Your task to perform on an android device: Go to CNN.com Image 0: 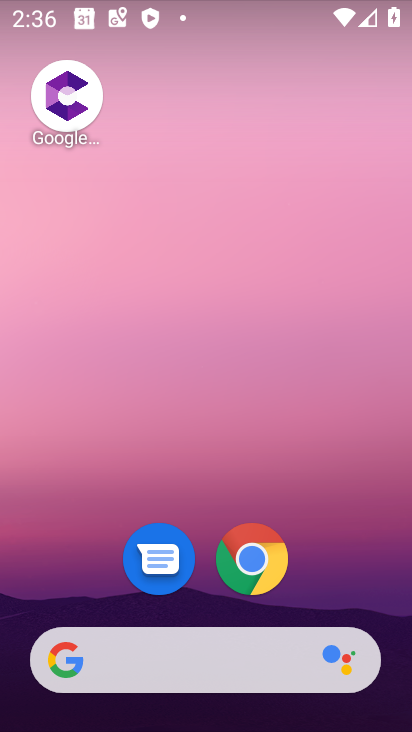
Step 0: click (261, 562)
Your task to perform on an android device: Go to CNN.com Image 1: 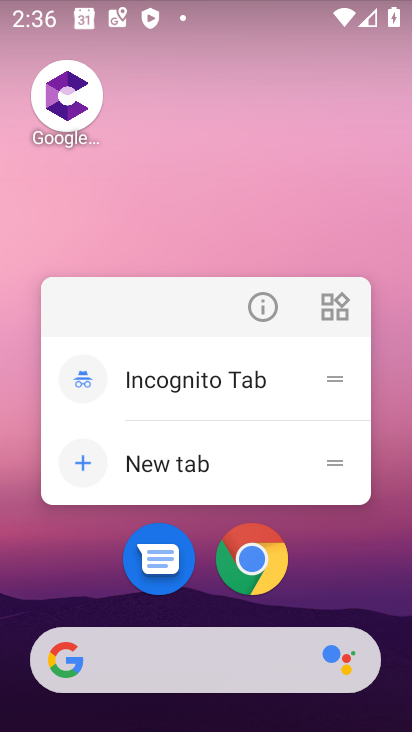
Step 1: click (261, 562)
Your task to perform on an android device: Go to CNN.com Image 2: 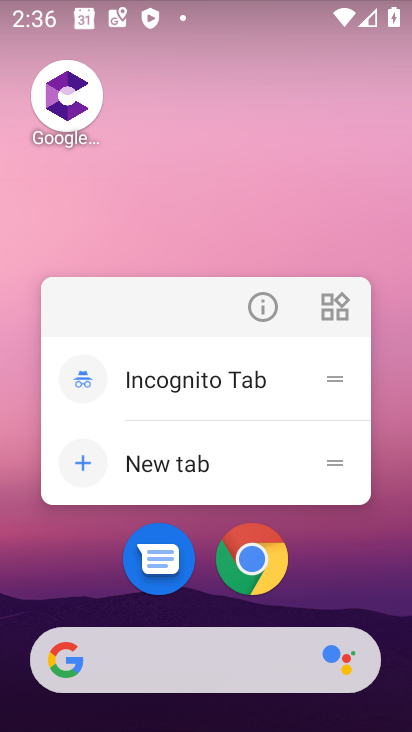
Step 2: click (261, 562)
Your task to perform on an android device: Go to CNN.com Image 3: 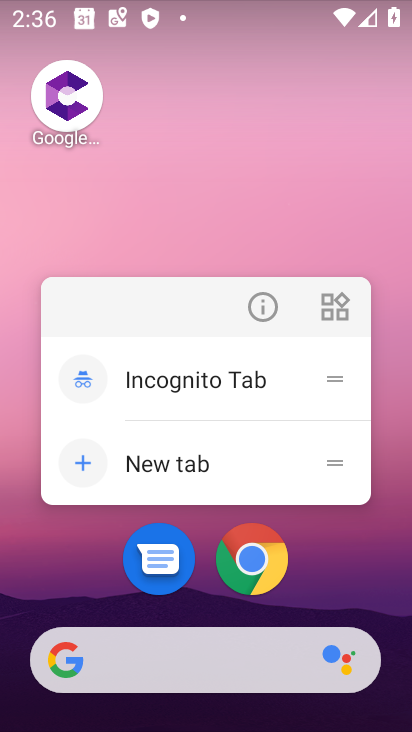
Step 3: click (261, 562)
Your task to perform on an android device: Go to CNN.com Image 4: 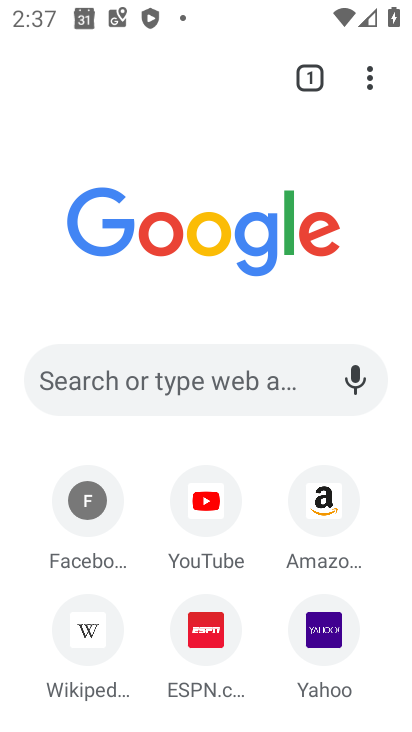
Step 4: click (182, 379)
Your task to perform on an android device: Go to CNN.com Image 5: 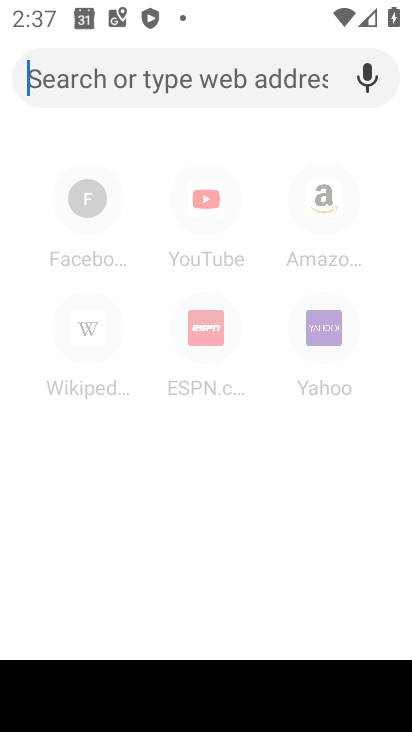
Step 5: type "cnn"
Your task to perform on an android device: Go to CNN.com Image 6: 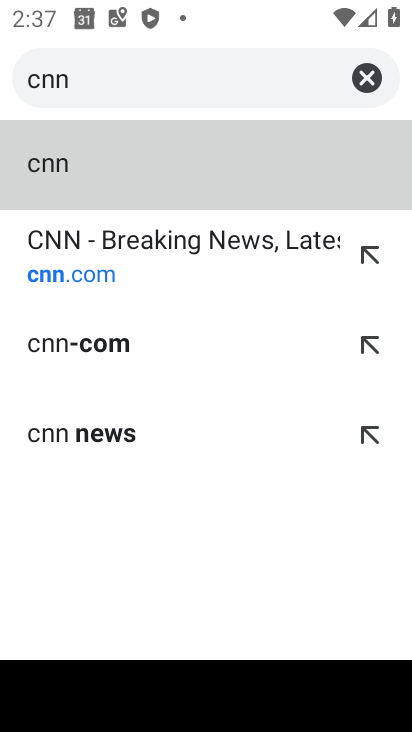
Step 6: click (68, 275)
Your task to perform on an android device: Go to CNN.com Image 7: 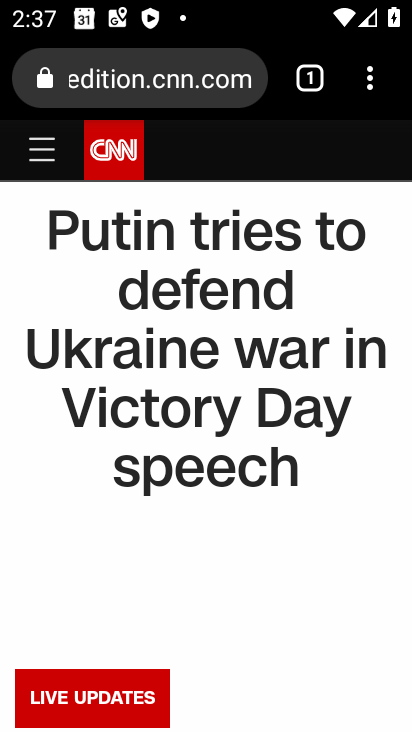
Step 7: task complete